Your task to perform on an android device: Open the web browser Image 0: 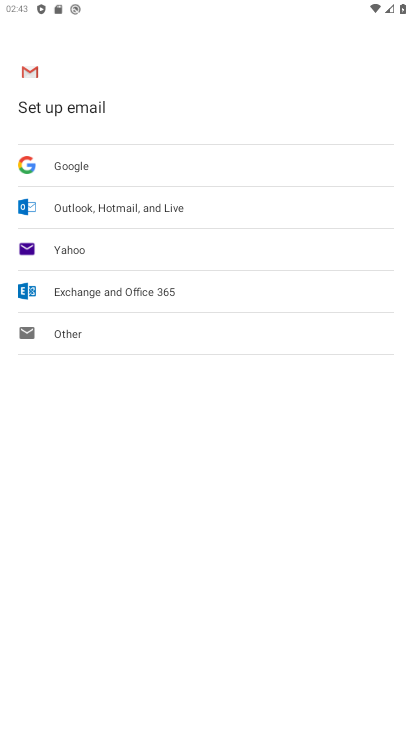
Step 0: press home button
Your task to perform on an android device: Open the web browser Image 1: 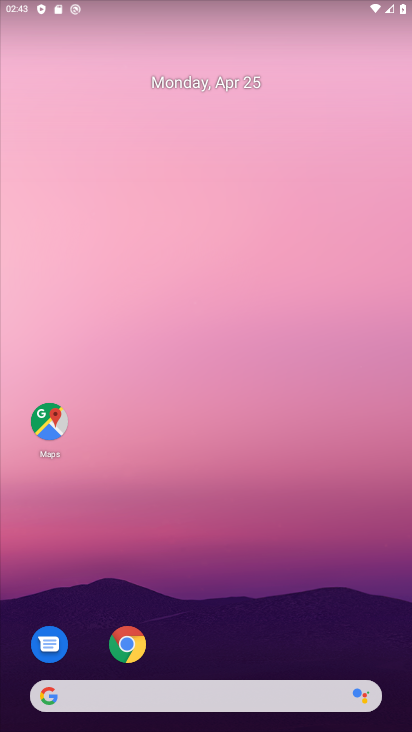
Step 1: click (124, 644)
Your task to perform on an android device: Open the web browser Image 2: 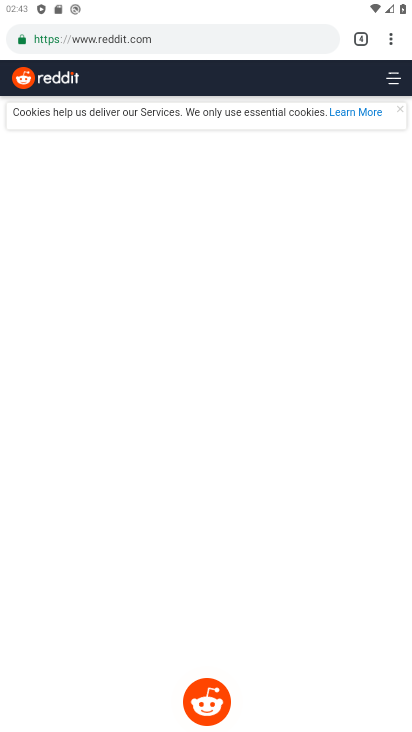
Step 2: task complete